Your task to perform on an android device: change timer sound Image 0: 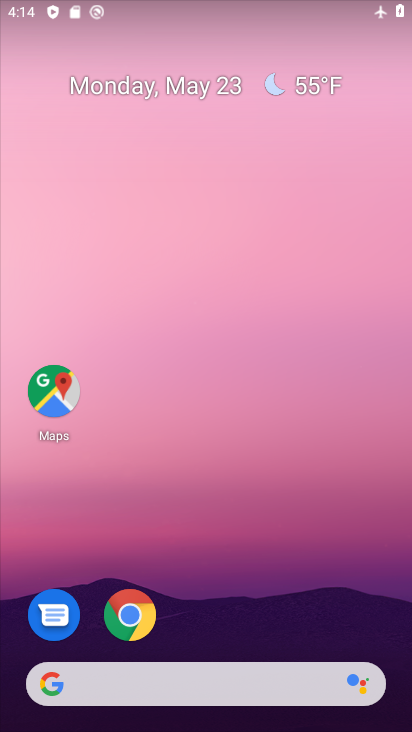
Step 0: drag from (378, 611) to (375, 163)
Your task to perform on an android device: change timer sound Image 1: 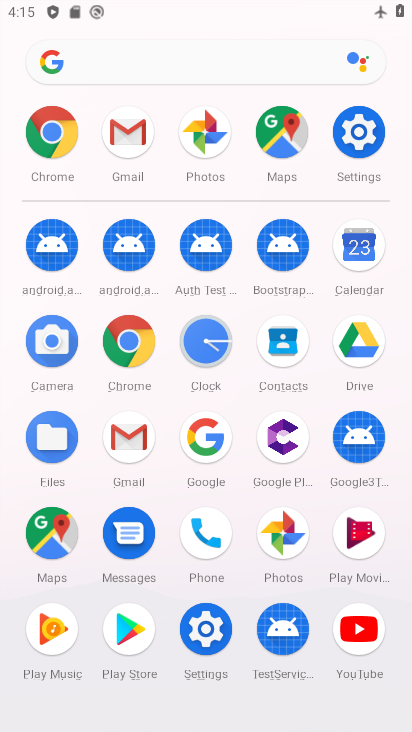
Step 1: click (211, 339)
Your task to perform on an android device: change timer sound Image 2: 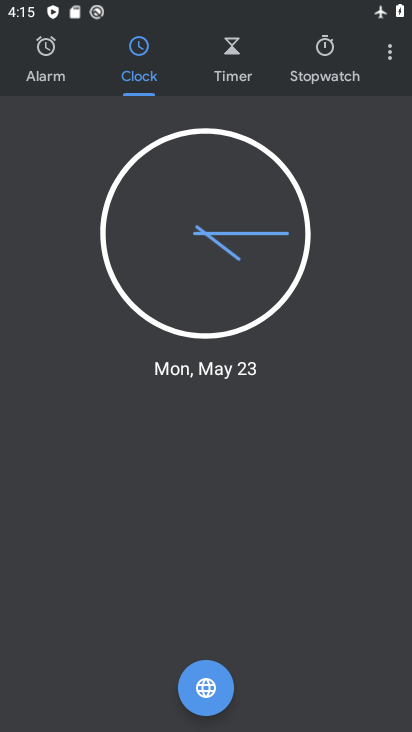
Step 2: click (391, 46)
Your task to perform on an android device: change timer sound Image 3: 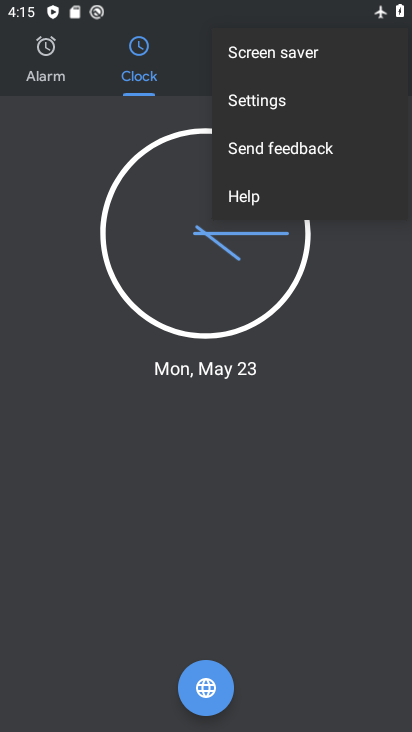
Step 3: click (287, 101)
Your task to perform on an android device: change timer sound Image 4: 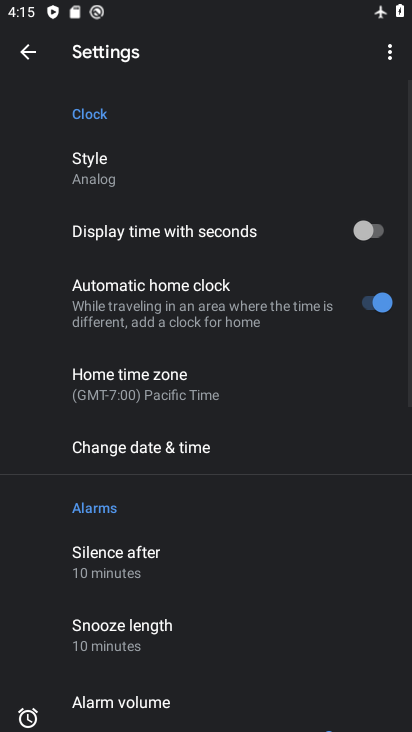
Step 4: drag from (281, 503) to (284, 394)
Your task to perform on an android device: change timer sound Image 5: 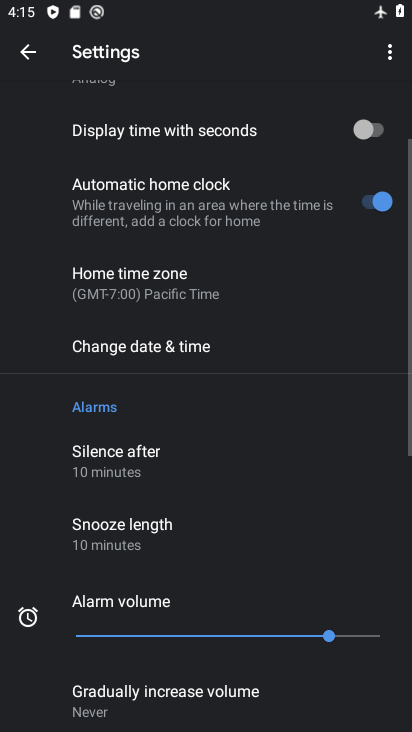
Step 5: drag from (284, 493) to (285, 397)
Your task to perform on an android device: change timer sound Image 6: 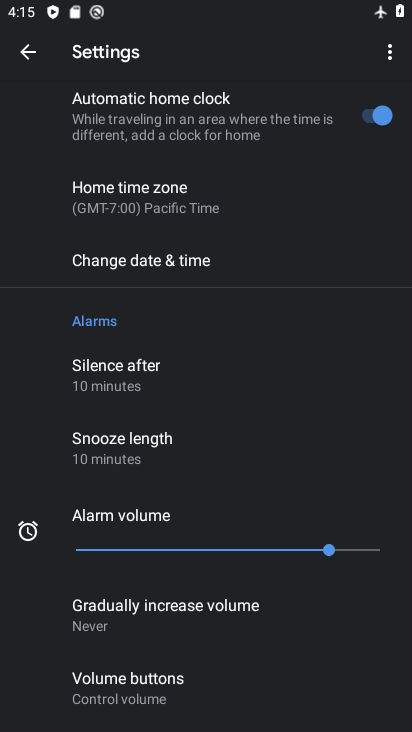
Step 6: drag from (272, 514) to (288, 424)
Your task to perform on an android device: change timer sound Image 7: 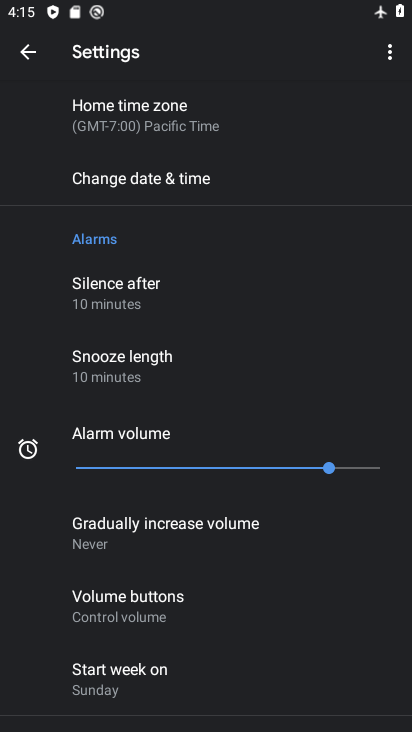
Step 7: drag from (290, 553) to (291, 449)
Your task to perform on an android device: change timer sound Image 8: 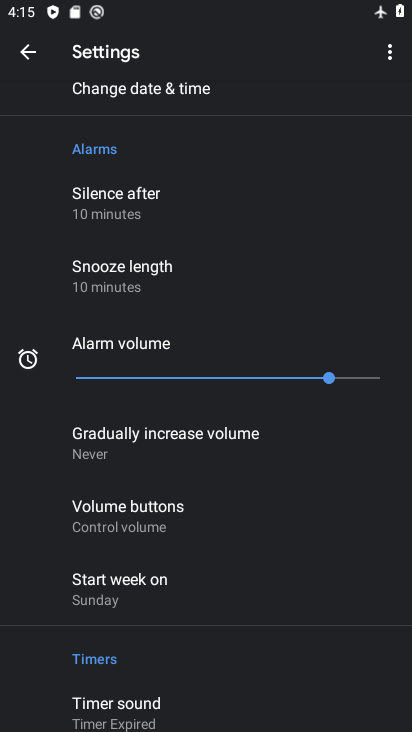
Step 8: drag from (277, 587) to (279, 469)
Your task to perform on an android device: change timer sound Image 9: 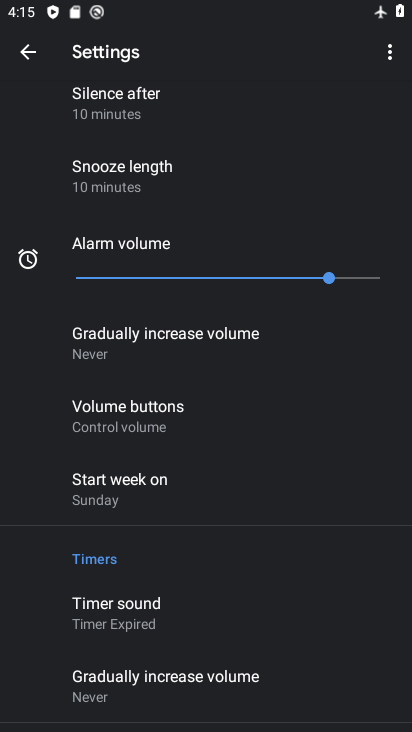
Step 9: drag from (272, 567) to (282, 493)
Your task to perform on an android device: change timer sound Image 10: 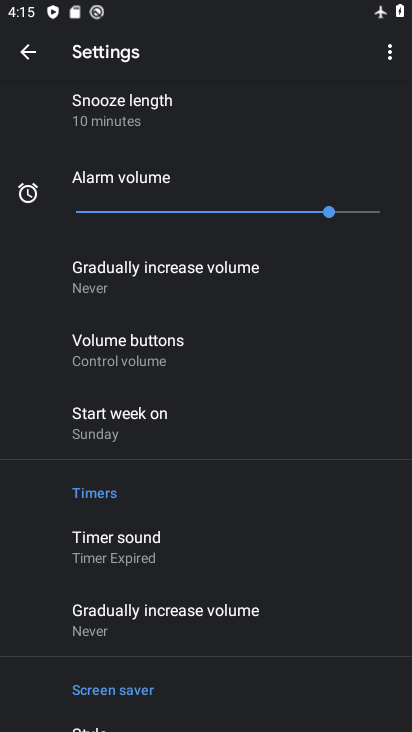
Step 10: drag from (301, 635) to (308, 512)
Your task to perform on an android device: change timer sound Image 11: 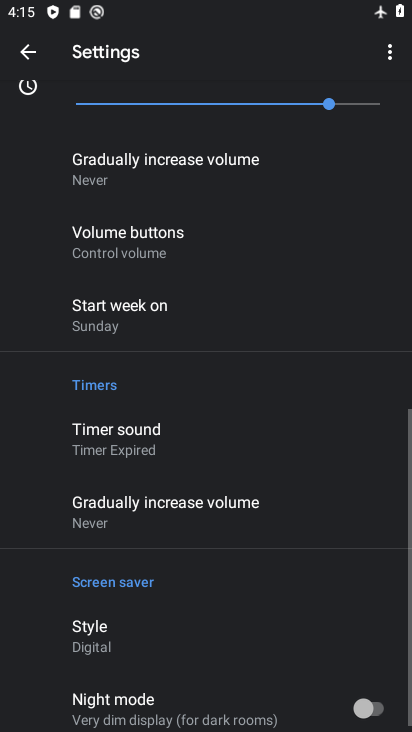
Step 11: drag from (292, 638) to (294, 533)
Your task to perform on an android device: change timer sound Image 12: 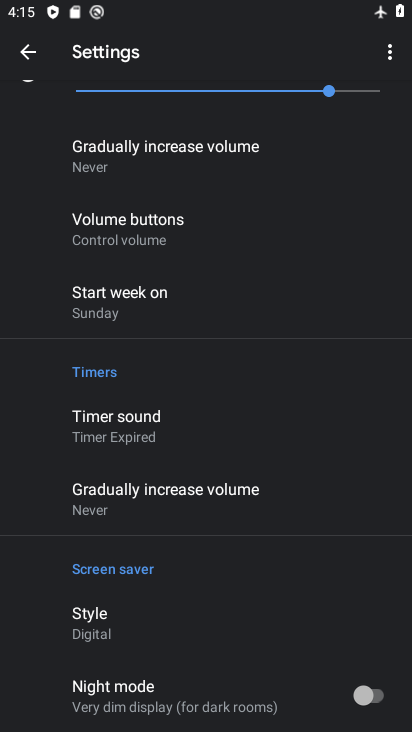
Step 12: click (167, 426)
Your task to perform on an android device: change timer sound Image 13: 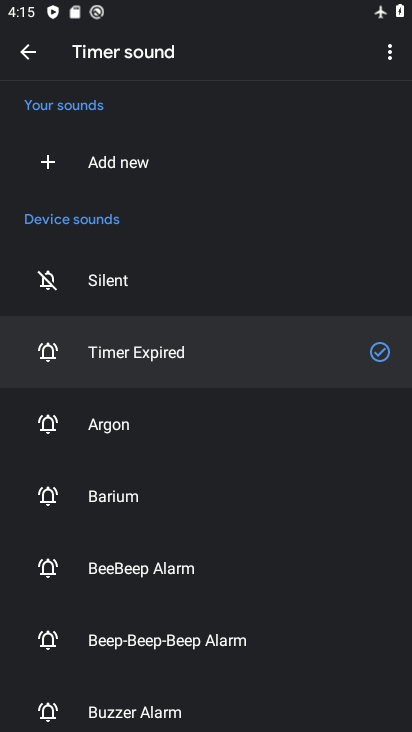
Step 13: click (127, 498)
Your task to perform on an android device: change timer sound Image 14: 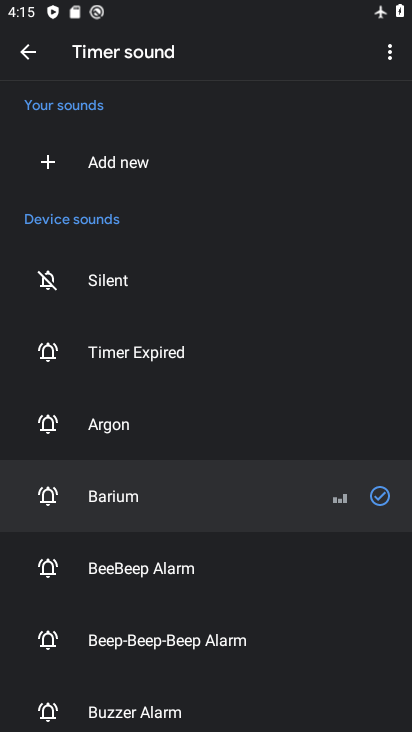
Step 14: task complete